Your task to perform on an android device: Turn on the flashlight Image 0: 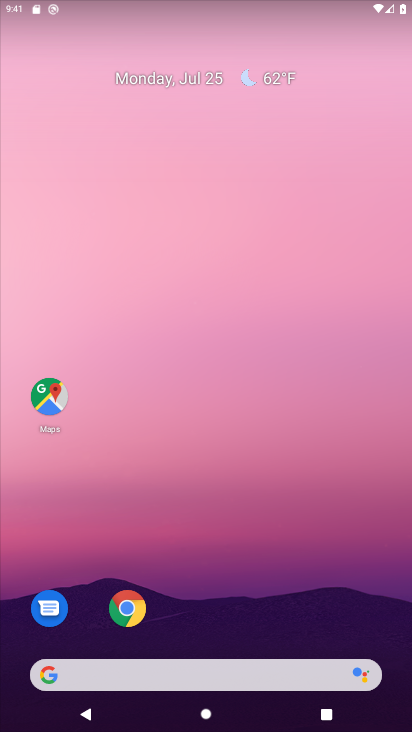
Step 0: drag from (218, 640) to (174, 78)
Your task to perform on an android device: Turn on the flashlight Image 1: 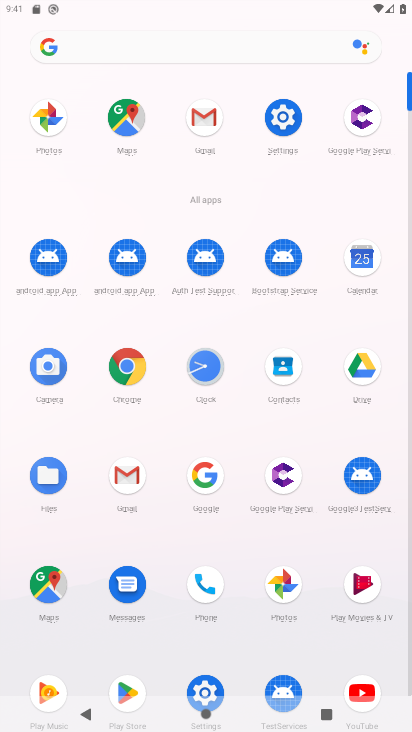
Step 1: click (282, 112)
Your task to perform on an android device: Turn on the flashlight Image 2: 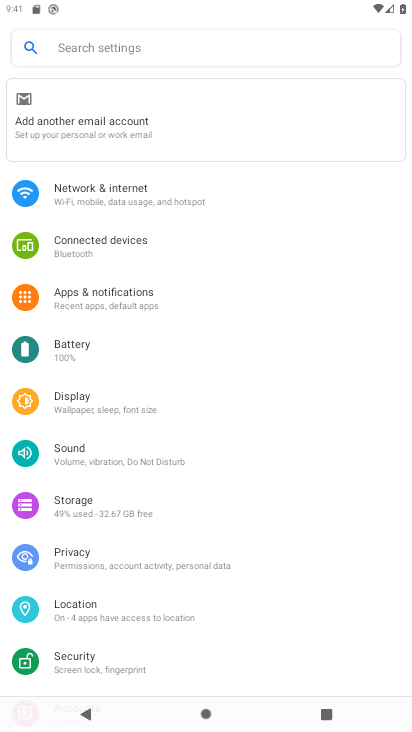
Step 2: click (78, 37)
Your task to perform on an android device: Turn on the flashlight Image 3: 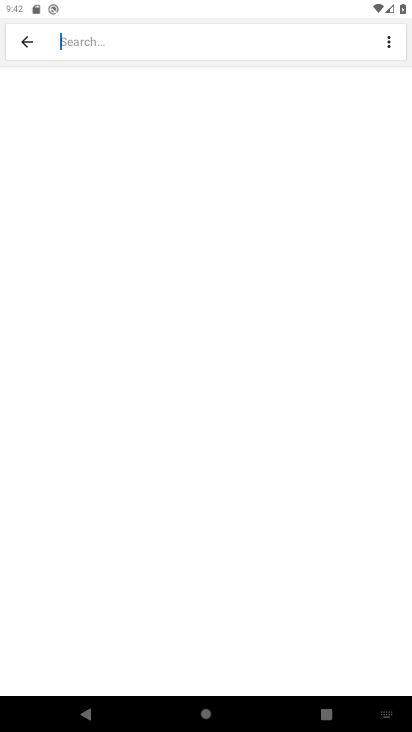
Step 3: type "flashlight"
Your task to perform on an android device: Turn on the flashlight Image 4: 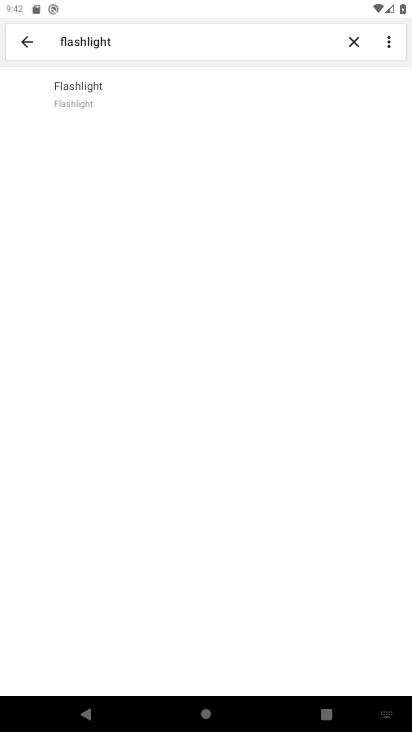
Step 4: click (115, 92)
Your task to perform on an android device: Turn on the flashlight Image 5: 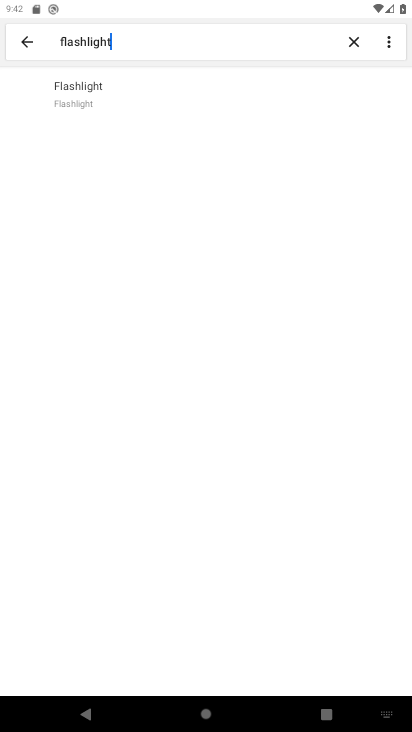
Step 5: click (112, 84)
Your task to perform on an android device: Turn on the flashlight Image 6: 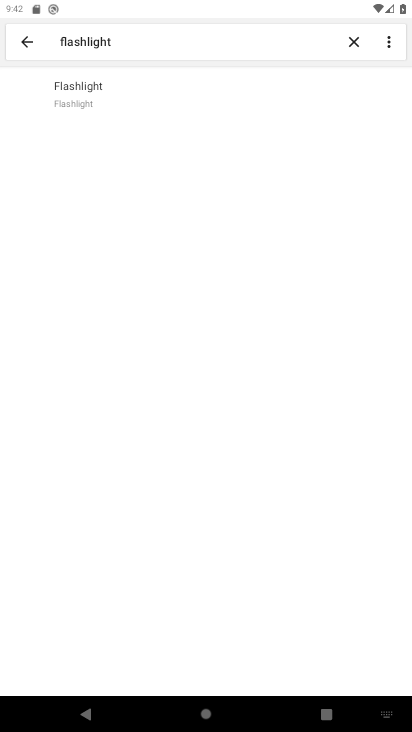
Step 6: task complete